Your task to perform on an android device: Play the last video I watched on Youtube Image 0: 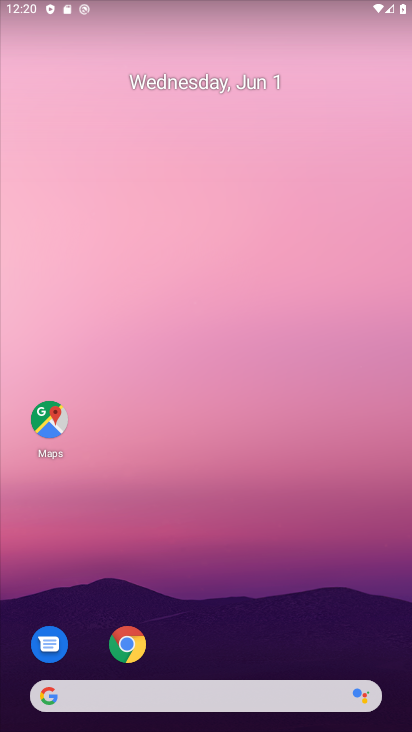
Step 0: drag from (296, 650) to (290, 457)
Your task to perform on an android device: Play the last video I watched on Youtube Image 1: 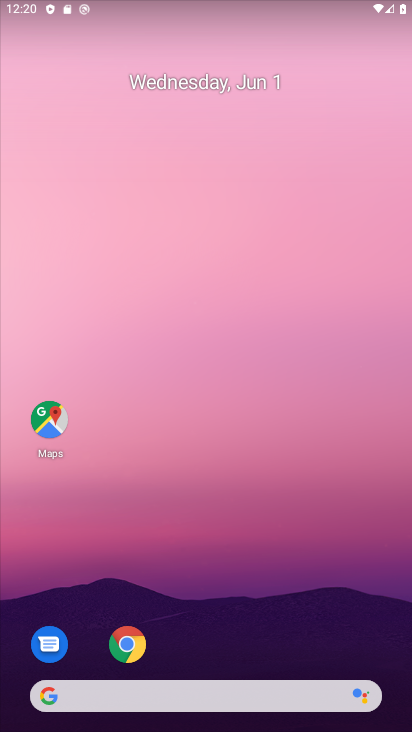
Step 1: drag from (362, 644) to (370, 50)
Your task to perform on an android device: Play the last video I watched on Youtube Image 2: 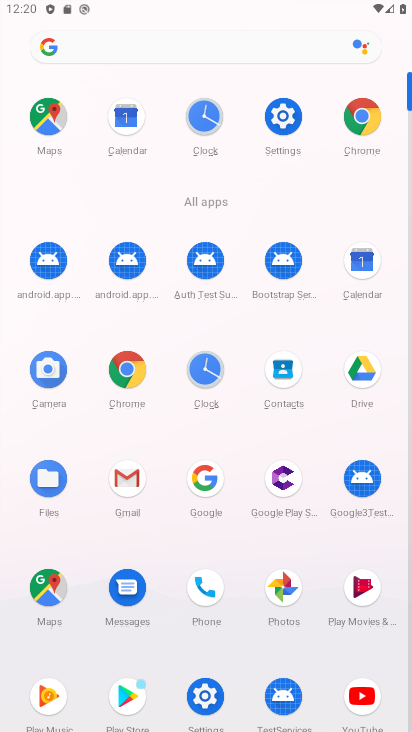
Step 2: click (372, 682)
Your task to perform on an android device: Play the last video I watched on Youtube Image 3: 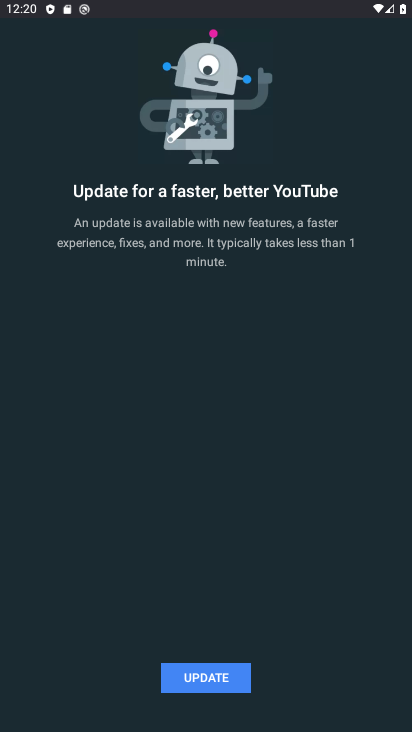
Step 3: click (235, 681)
Your task to perform on an android device: Play the last video I watched on Youtube Image 4: 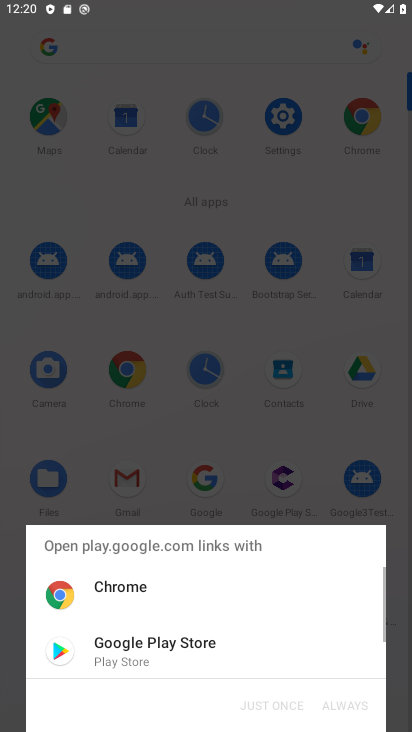
Step 4: click (148, 640)
Your task to perform on an android device: Play the last video I watched on Youtube Image 5: 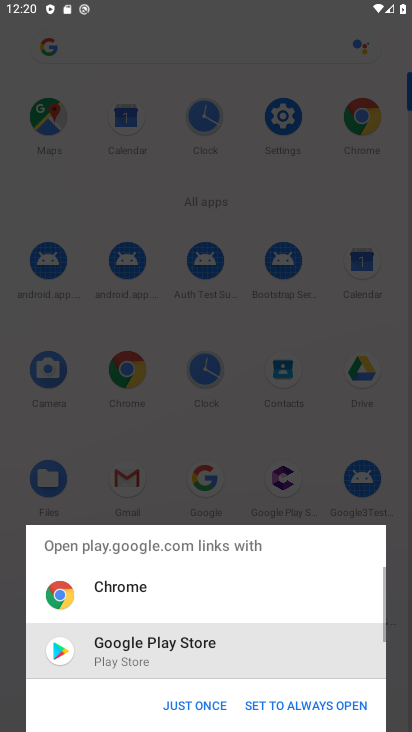
Step 5: click (182, 711)
Your task to perform on an android device: Play the last video I watched on Youtube Image 6: 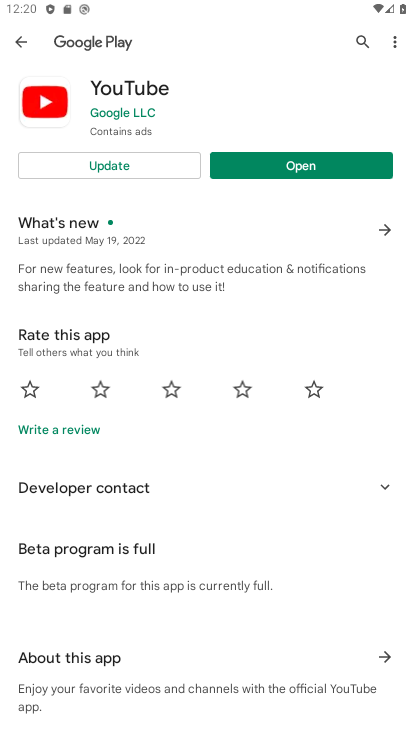
Step 6: click (85, 162)
Your task to perform on an android device: Play the last video I watched on Youtube Image 7: 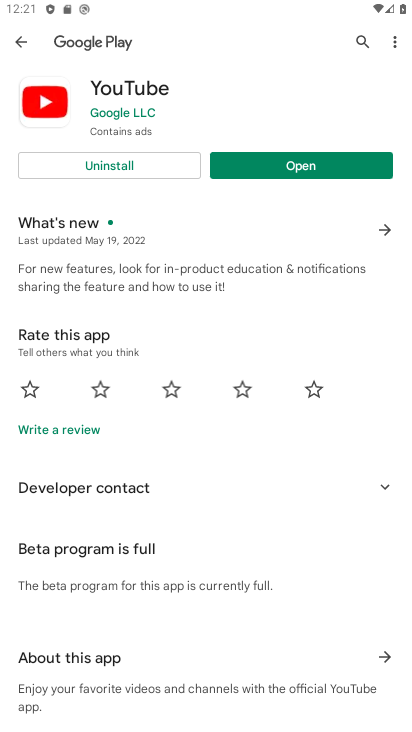
Step 7: click (348, 163)
Your task to perform on an android device: Play the last video I watched on Youtube Image 8: 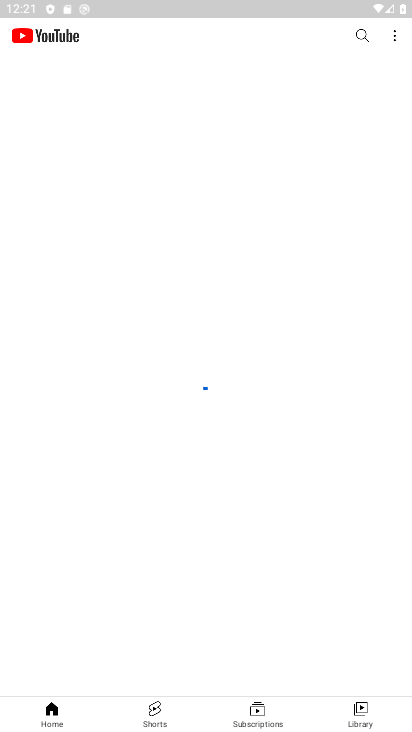
Step 8: click (353, 702)
Your task to perform on an android device: Play the last video I watched on Youtube Image 9: 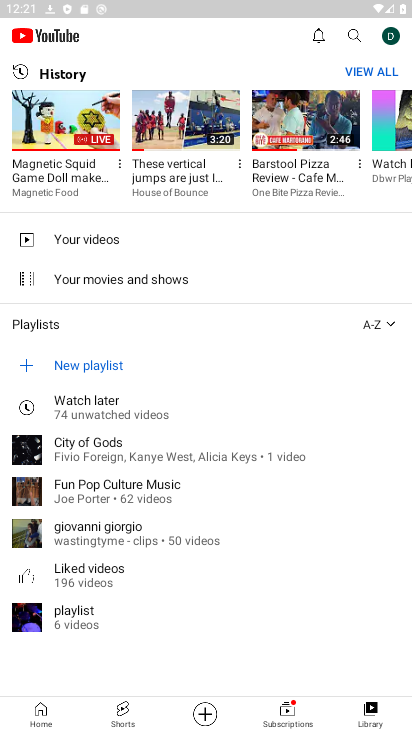
Step 9: click (67, 124)
Your task to perform on an android device: Play the last video I watched on Youtube Image 10: 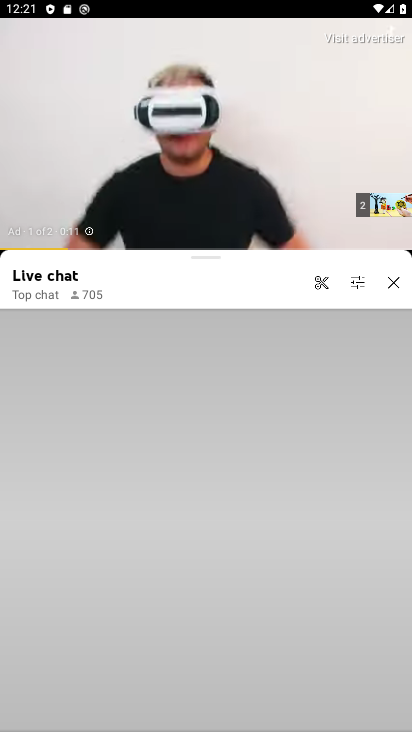
Step 10: task complete